Your task to perform on an android device: Open Google Chrome and click the shortcut for Amazon.com Image 0: 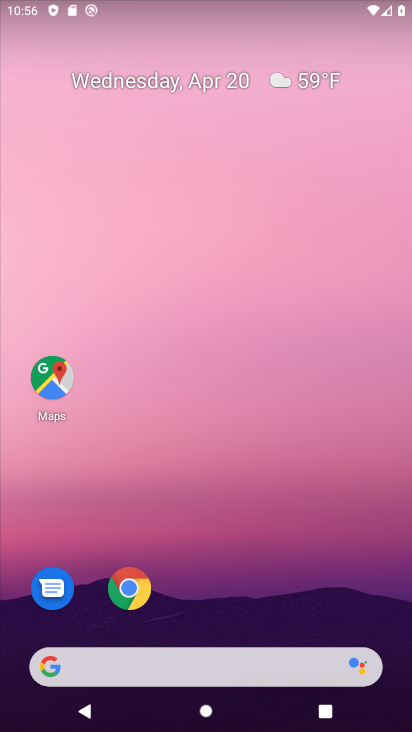
Step 0: click (129, 578)
Your task to perform on an android device: Open Google Chrome and click the shortcut for Amazon.com Image 1: 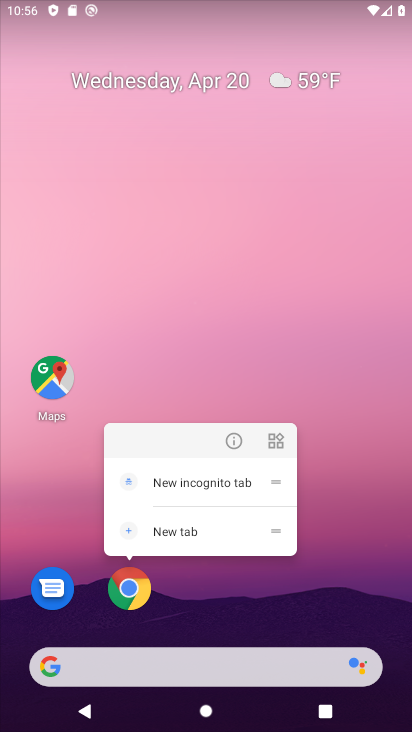
Step 1: click (123, 591)
Your task to perform on an android device: Open Google Chrome and click the shortcut for Amazon.com Image 2: 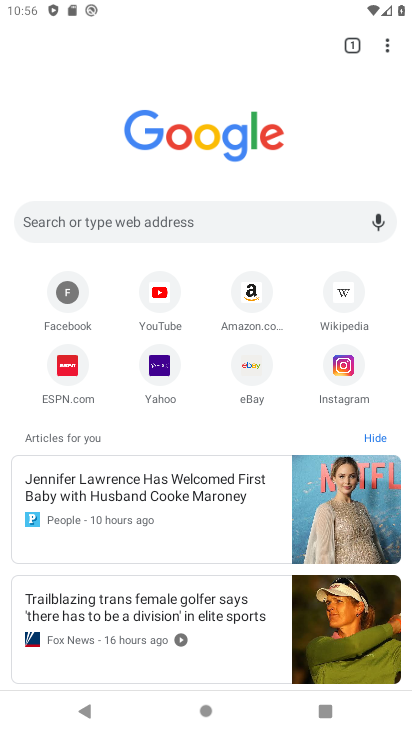
Step 2: click (250, 301)
Your task to perform on an android device: Open Google Chrome and click the shortcut for Amazon.com Image 3: 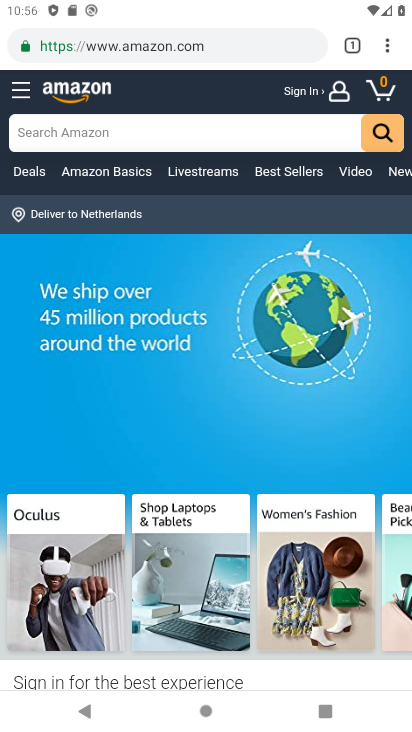
Step 3: task complete